Your task to perform on an android device: Open network settings Image 0: 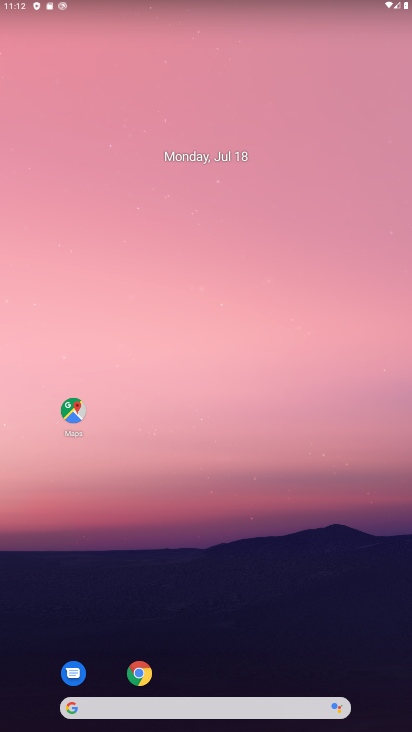
Step 0: press home button
Your task to perform on an android device: Open network settings Image 1: 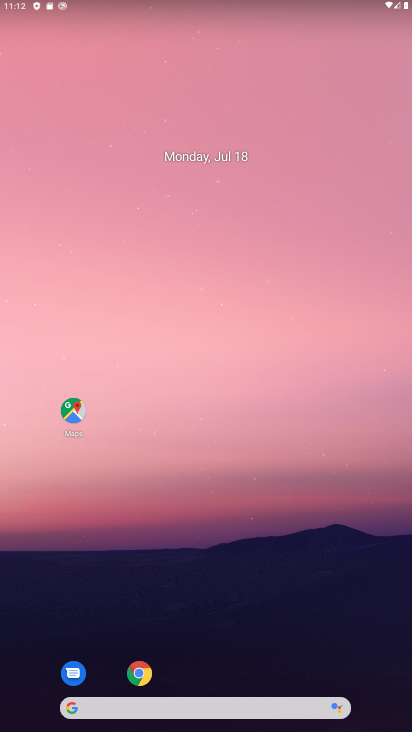
Step 1: drag from (222, 678) to (254, 0)
Your task to perform on an android device: Open network settings Image 2: 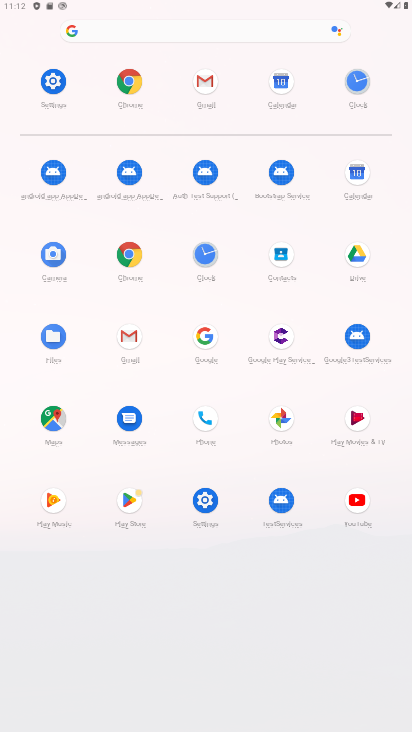
Step 2: click (52, 78)
Your task to perform on an android device: Open network settings Image 3: 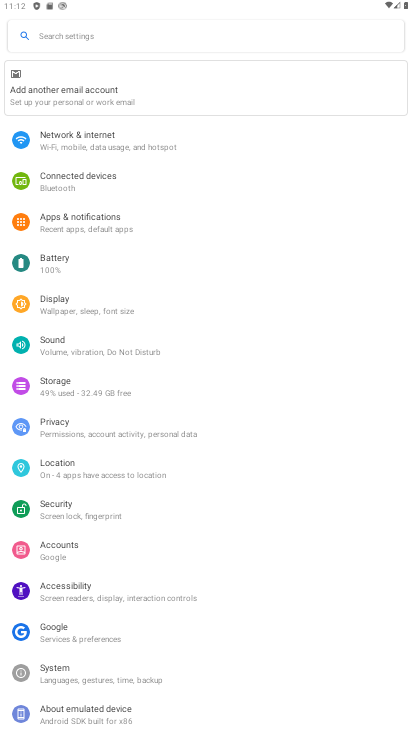
Step 3: click (132, 137)
Your task to perform on an android device: Open network settings Image 4: 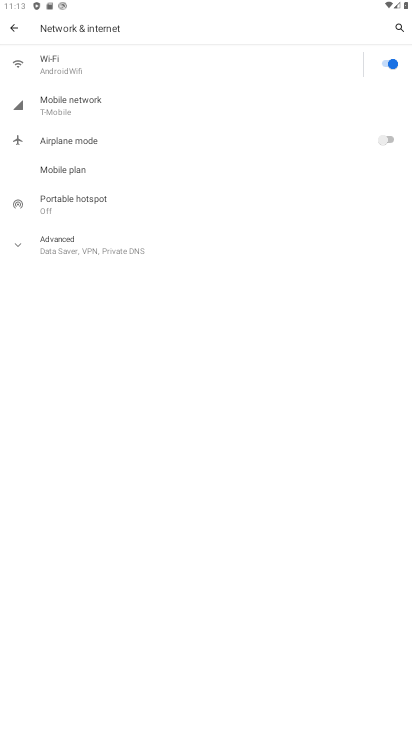
Step 4: click (18, 242)
Your task to perform on an android device: Open network settings Image 5: 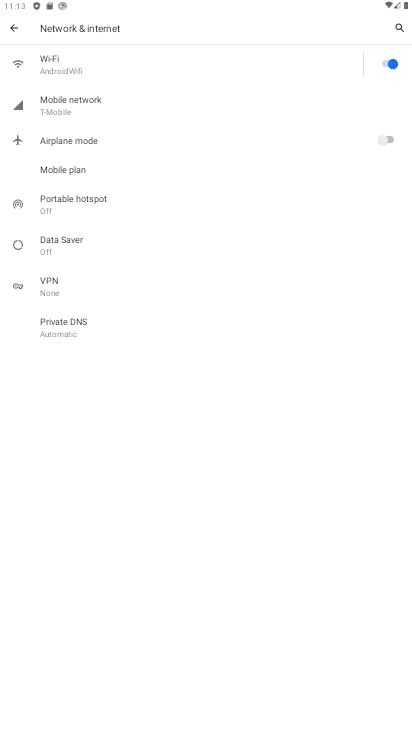
Step 5: task complete